Your task to perform on an android device: Go to location settings Image 0: 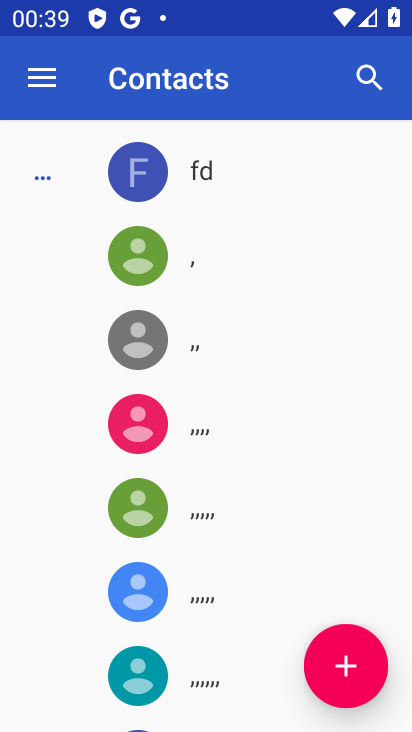
Step 0: press home button
Your task to perform on an android device: Go to location settings Image 1: 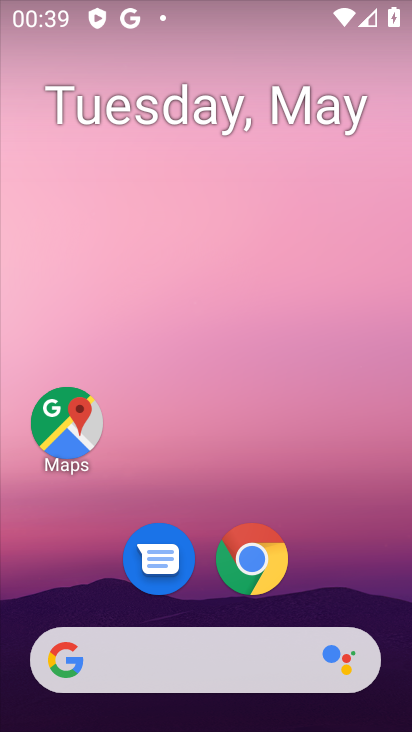
Step 1: drag from (314, 306) to (291, 96)
Your task to perform on an android device: Go to location settings Image 2: 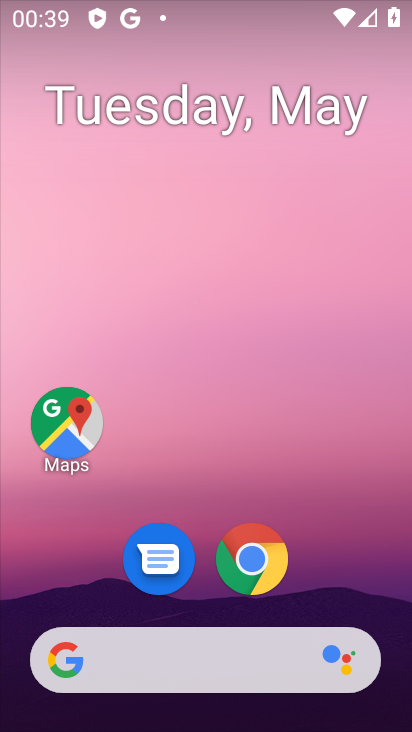
Step 2: drag from (304, 491) to (245, 3)
Your task to perform on an android device: Go to location settings Image 3: 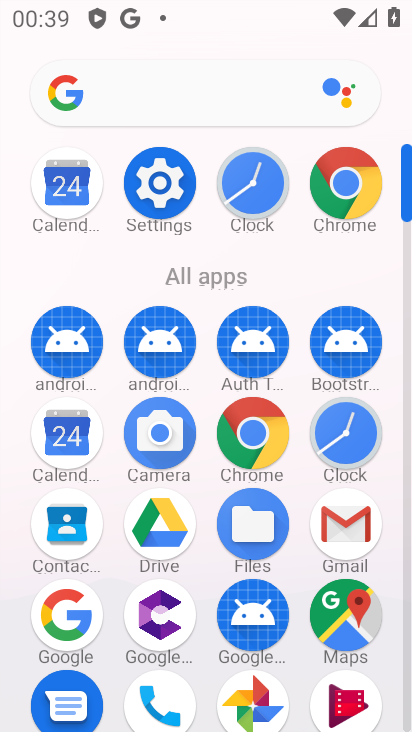
Step 3: click (162, 193)
Your task to perform on an android device: Go to location settings Image 4: 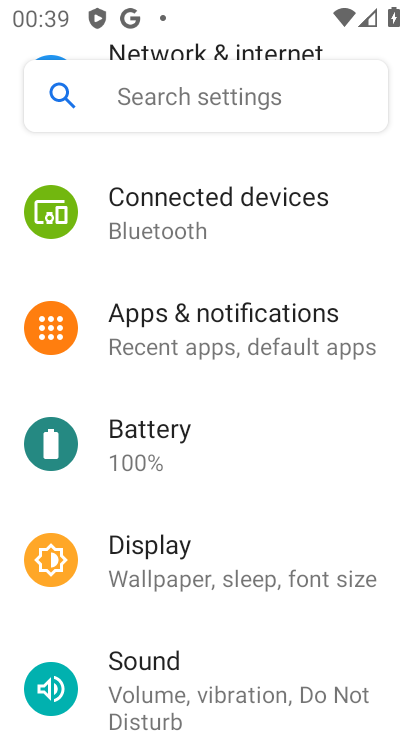
Step 4: drag from (284, 533) to (274, 211)
Your task to perform on an android device: Go to location settings Image 5: 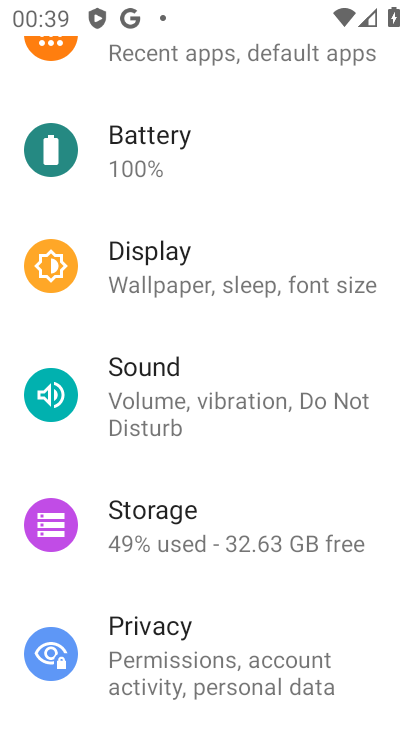
Step 5: drag from (220, 572) to (225, 224)
Your task to perform on an android device: Go to location settings Image 6: 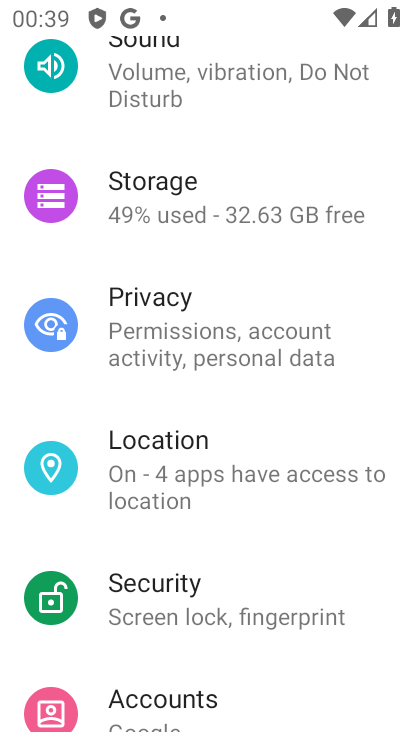
Step 6: click (236, 483)
Your task to perform on an android device: Go to location settings Image 7: 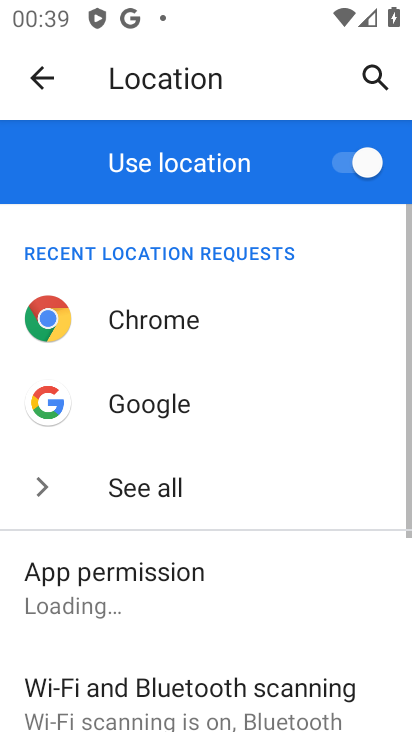
Step 7: task complete